Your task to perform on an android device: Go to Amazon Image 0: 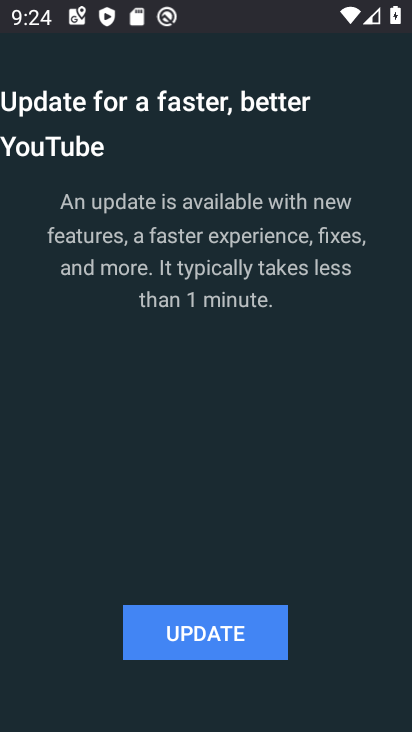
Step 0: press back button
Your task to perform on an android device: Go to Amazon Image 1: 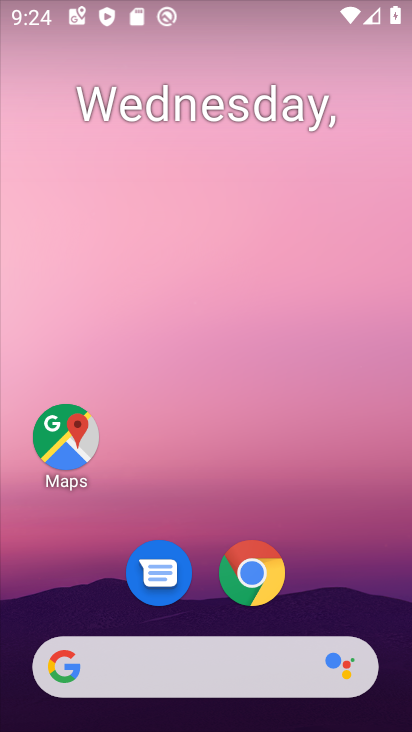
Step 1: press home button
Your task to perform on an android device: Go to Amazon Image 2: 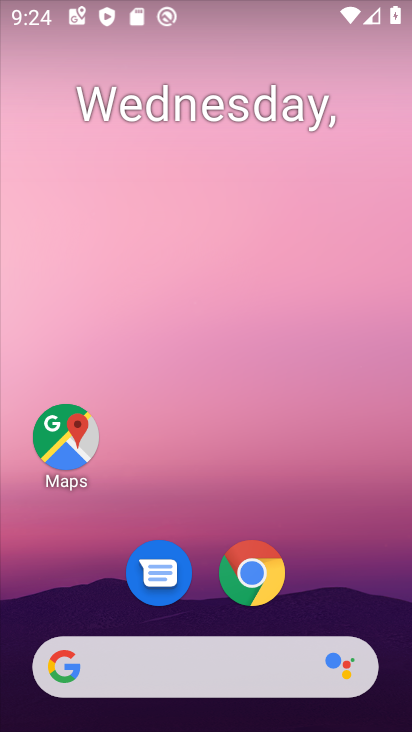
Step 2: click (258, 562)
Your task to perform on an android device: Go to Amazon Image 3: 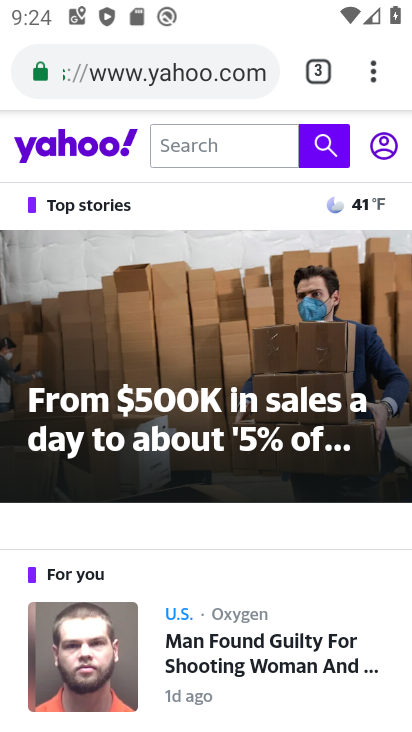
Step 3: click (195, 141)
Your task to perform on an android device: Go to Amazon Image 4: 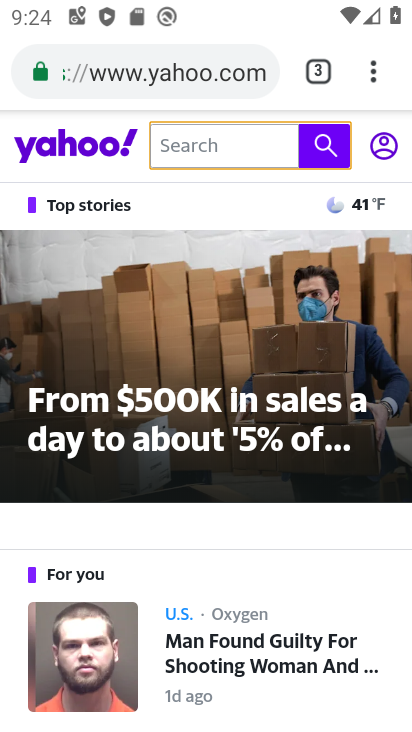
Step 4: type "Amazon"
Your task to perform on an android device: Go to Amazon Image 5: 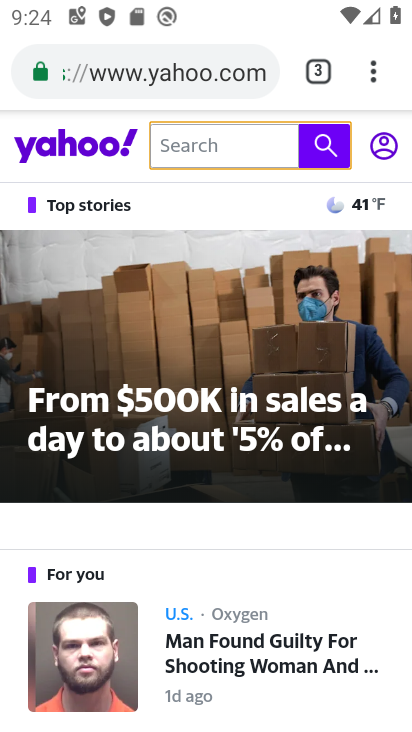
Step 5: click (262, 65)
Your task to perform on an android device: Go to Amazon Image 6: 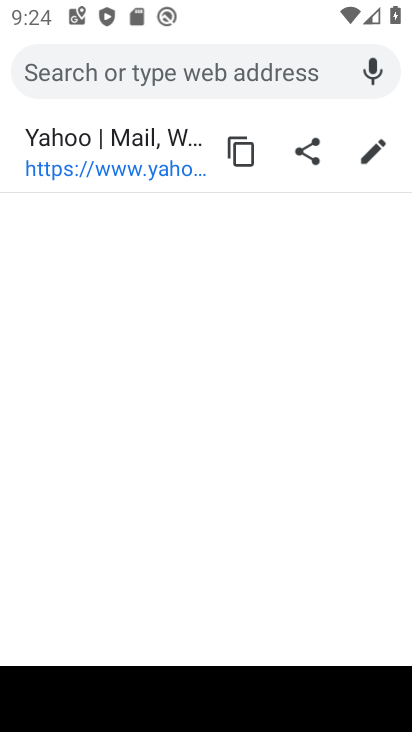
Step 6: type "Amazon"
Your task to perform on an android device: Go to Amazon Image 7: 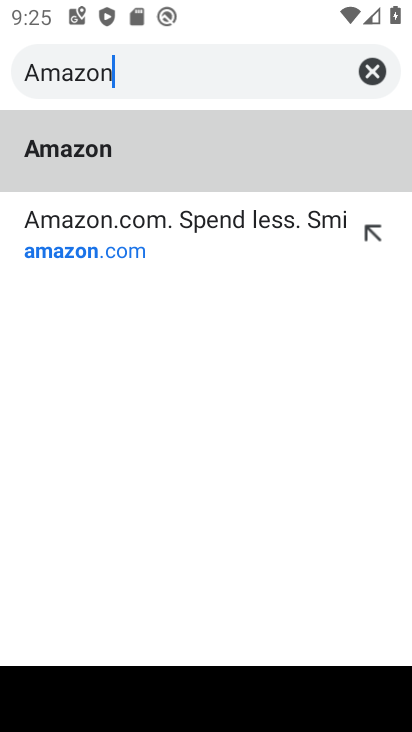
Step 7: click (98, 238)
Your task to perform on an android device: Go to Amazon Image 8: 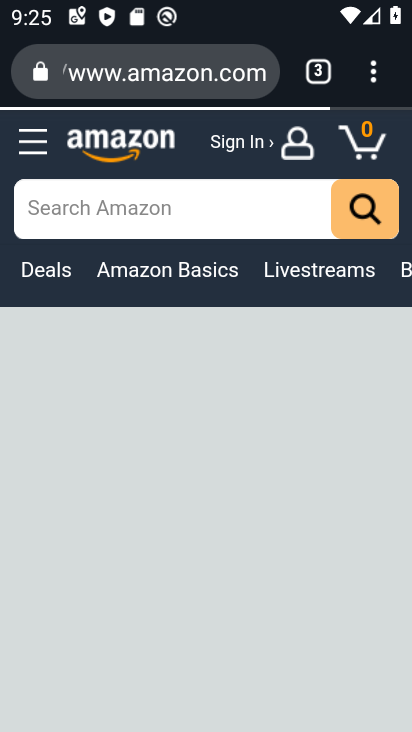
Step 8: task complete